Your task to perform on an android device: Open Google Maps Image 0: 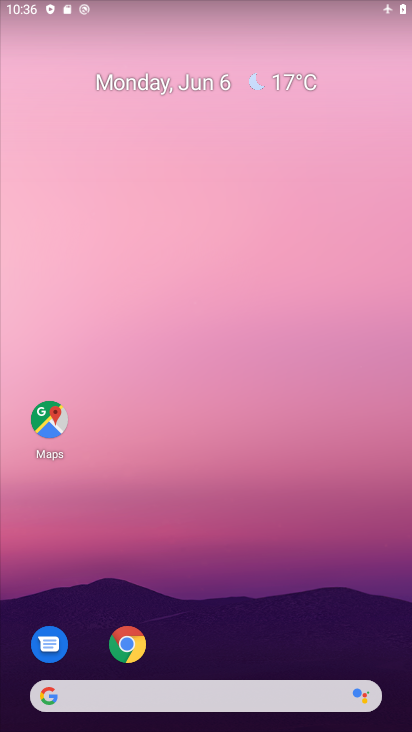
Step 0: press home button
Your task to perform on an android device: Open Google Maps Image 1: 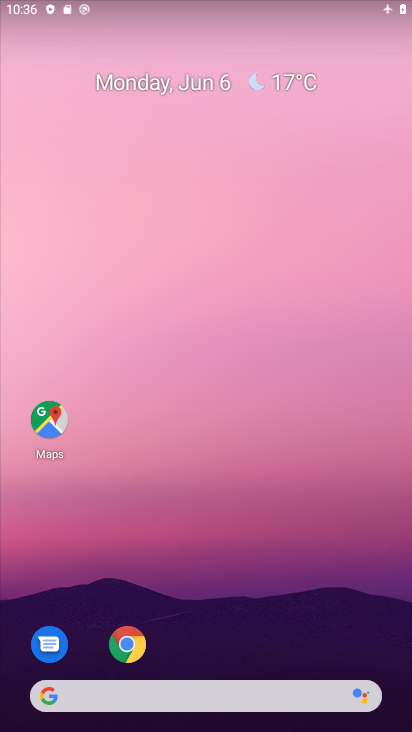
Step 1: click (268, 263)
Your task to perform on an android device: Open Google Maps Image 2: 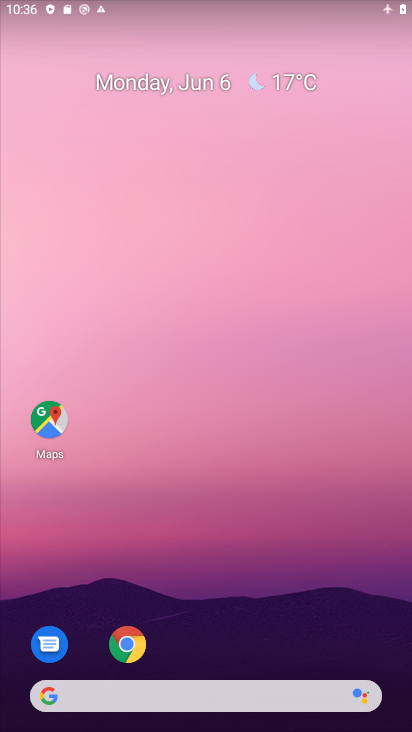
Step 2: click (48, 415)
Your task to perform on an android device: Open Google Maps Image 3: 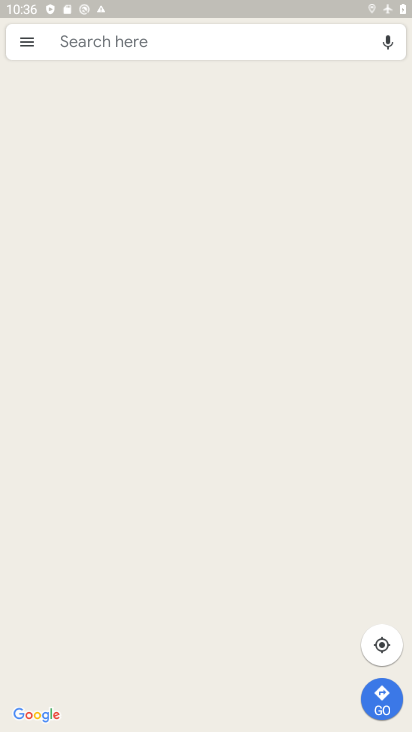
Step 3: task complete